Your task to perform on an android device: Set the phone to "Do not disturb". Image 0: 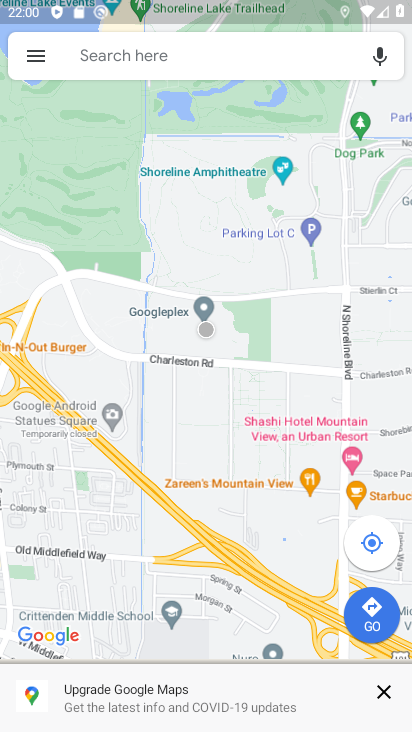
Step 0: drag from (302, 612) to (272, 72)
Your task to perform on an android device: Set the phone to "Do not disturb". Image 1: 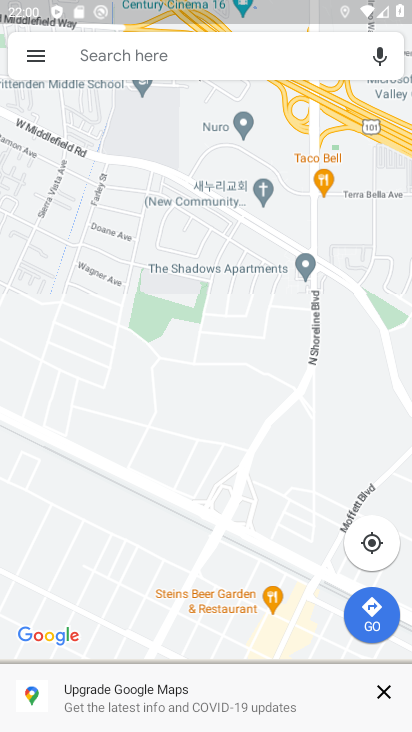
Step 1: press home button
Your task to perform on an android device: Set the phone to "Do not disturb". Image 2: 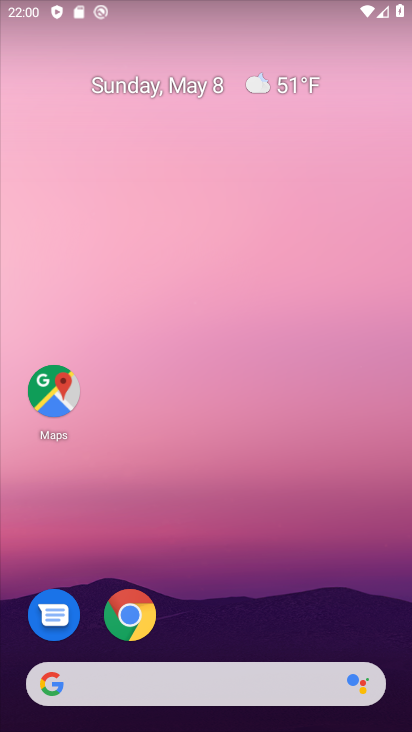
Step 2: drag from (219, 15) to (272, 439)
Your task to perform on an android device: Set the phone to "Do not disturb". Image 3: 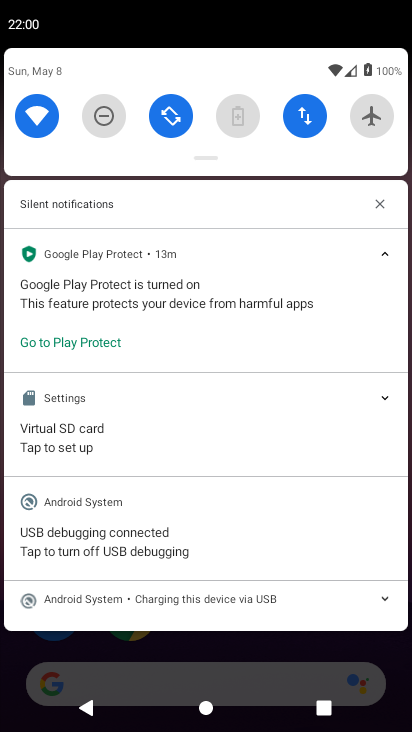
Step 3: click (101, 109)
Your task to perform on an android device: Set the phone to "Do not disturb". Image 4: 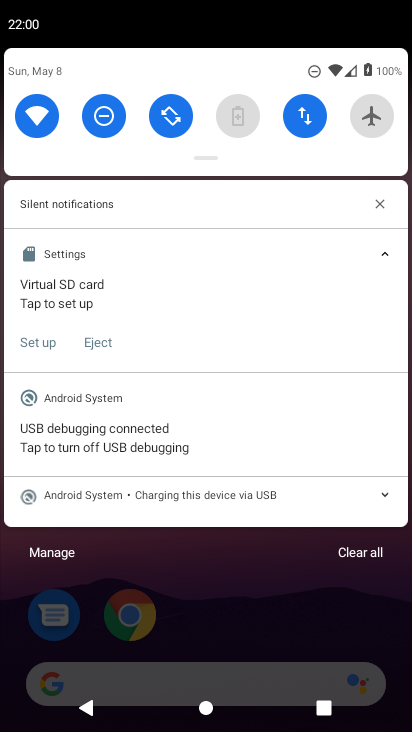
Step 4: task complete